Your task to perform on an android device: refresh tabs in the chrome app Image 0: 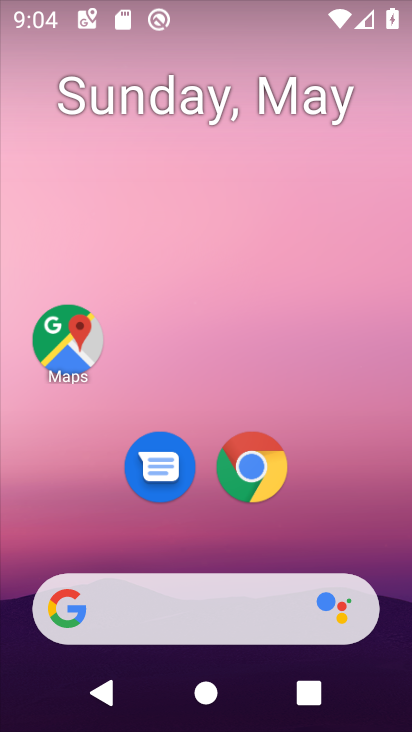
Step 0: drag from (338, 511) to (361, 56)
Your task to perform on an android device: refresh tabs in the chrome app Image 1: 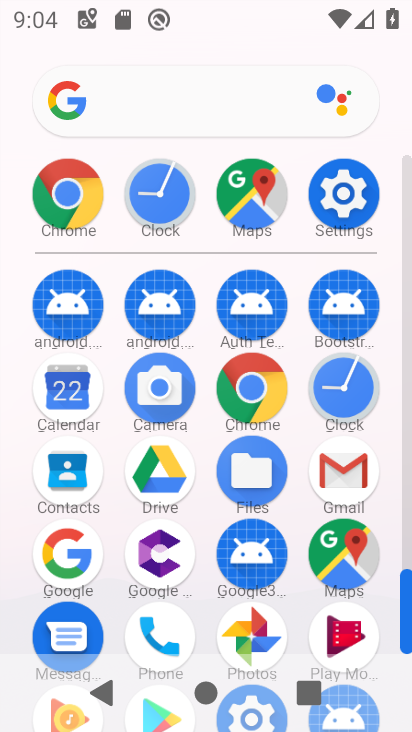
Step 1: click (244, 378)
Your task to perform on an android device: refresh tabs in the chrome app Image 2: 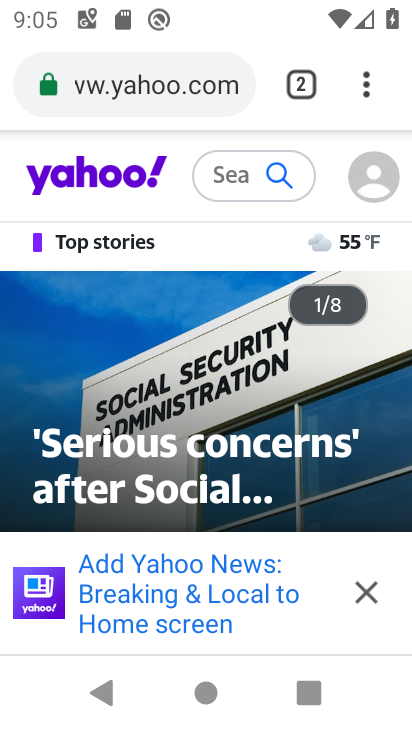
Step 2: task complete